Your task to perform on an android device: Search for "macbook" on bestbuy.com, select the first entry, add it to the cart, then select checkout. Image 0: 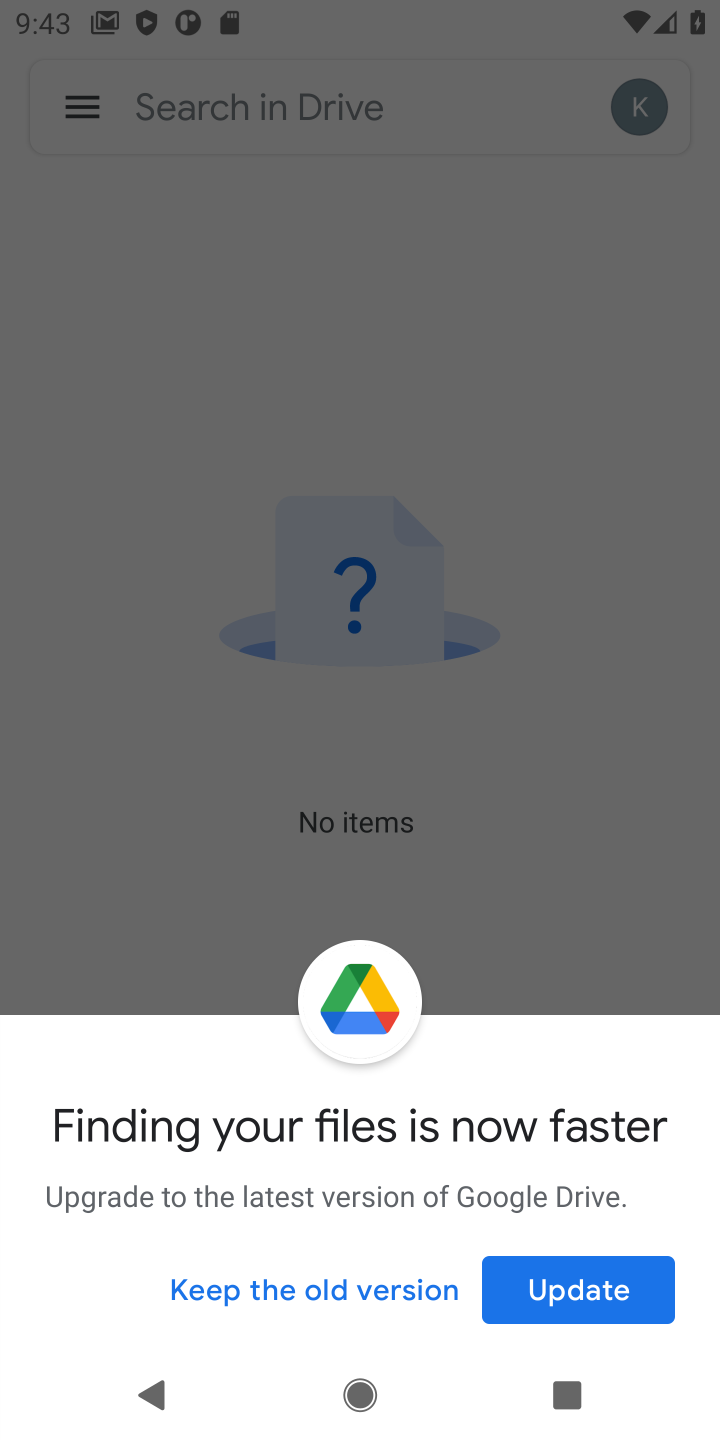
Step 0: press home button
Your task to perform on an android device: Search for "macbook" on bestbuy.com, select the first entry, add it to the cart, then select checkout. Image 1: 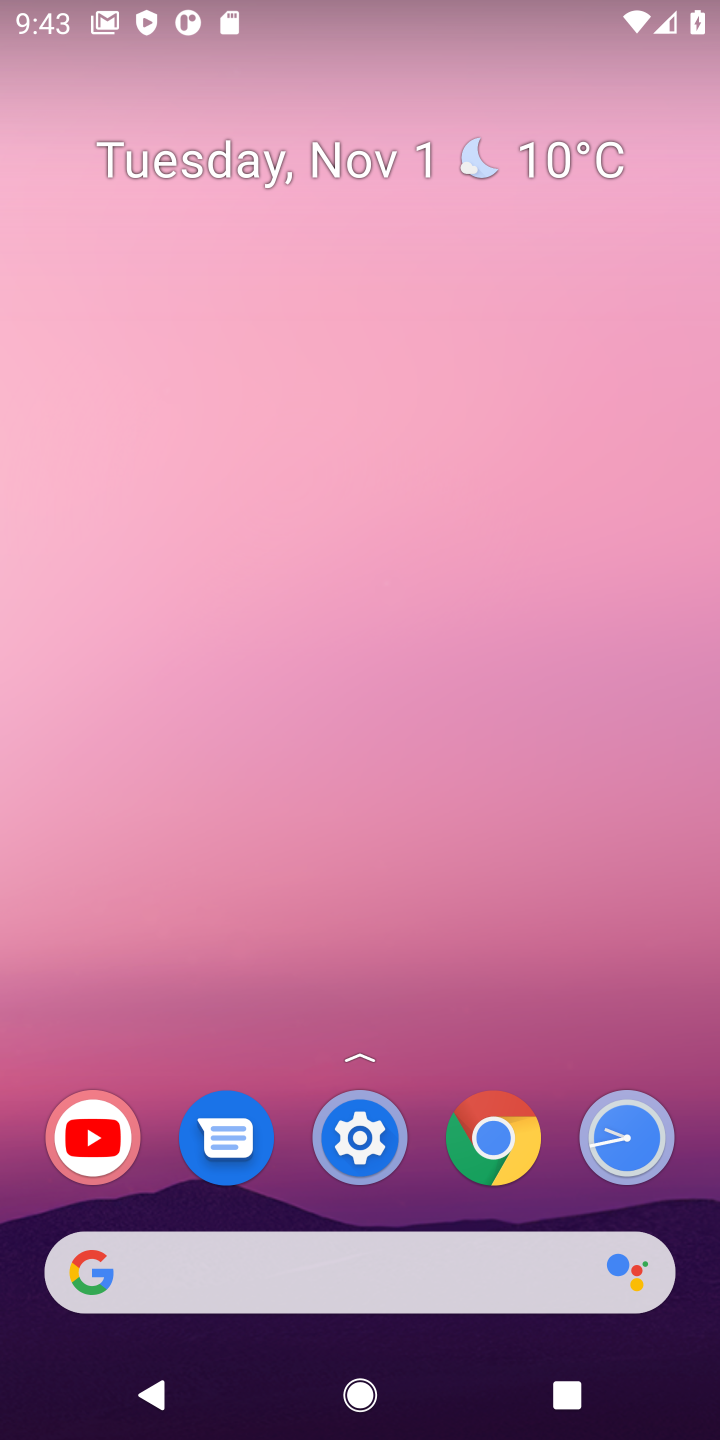
Step 1: click (489, 1143)
Your task to perform on an android device: Search for "macbook" on bestbuy.com, select the first entry, add it to the cart, then select checkout. Image 2: 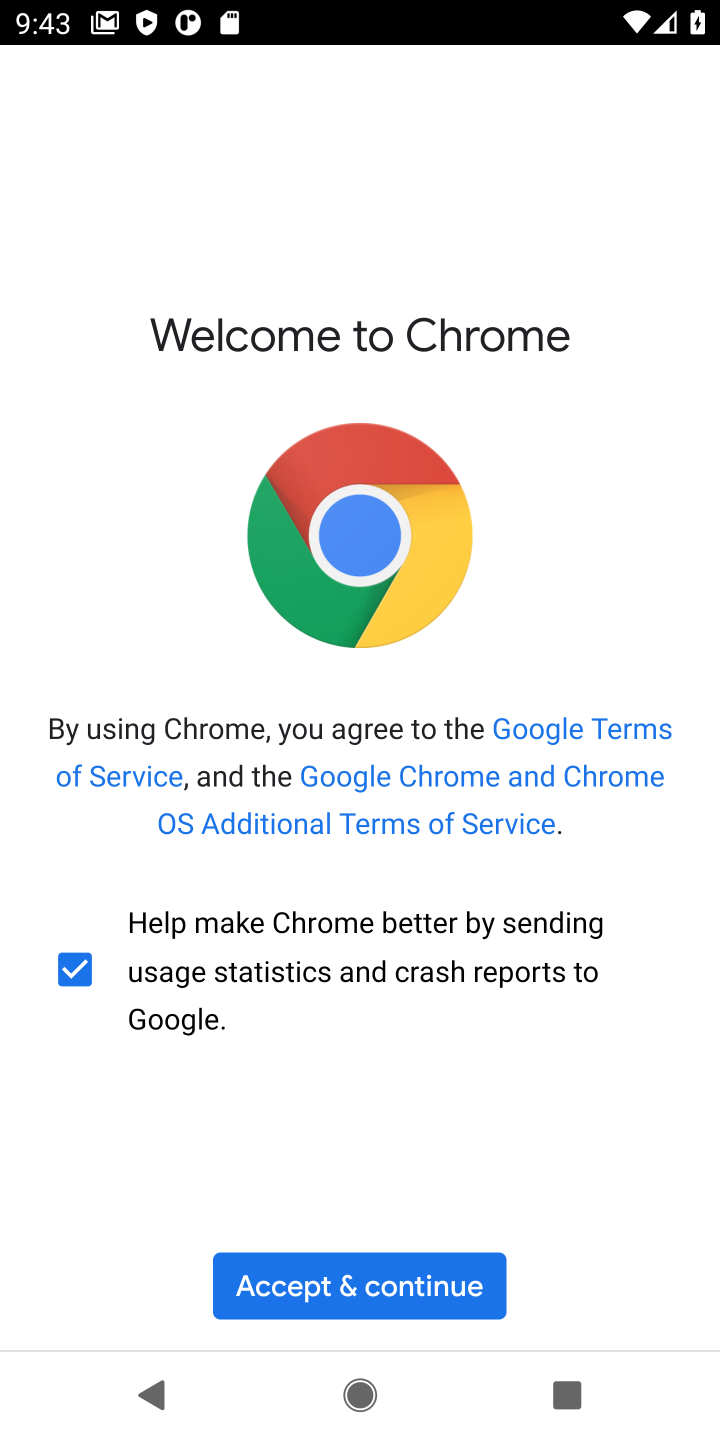
Step 2: click (377, 1273)
Your task to perform on an android device: Search for "macbook" on bestbuy.com, select the first entry, add it to the cart, then select checkout. Image 3: 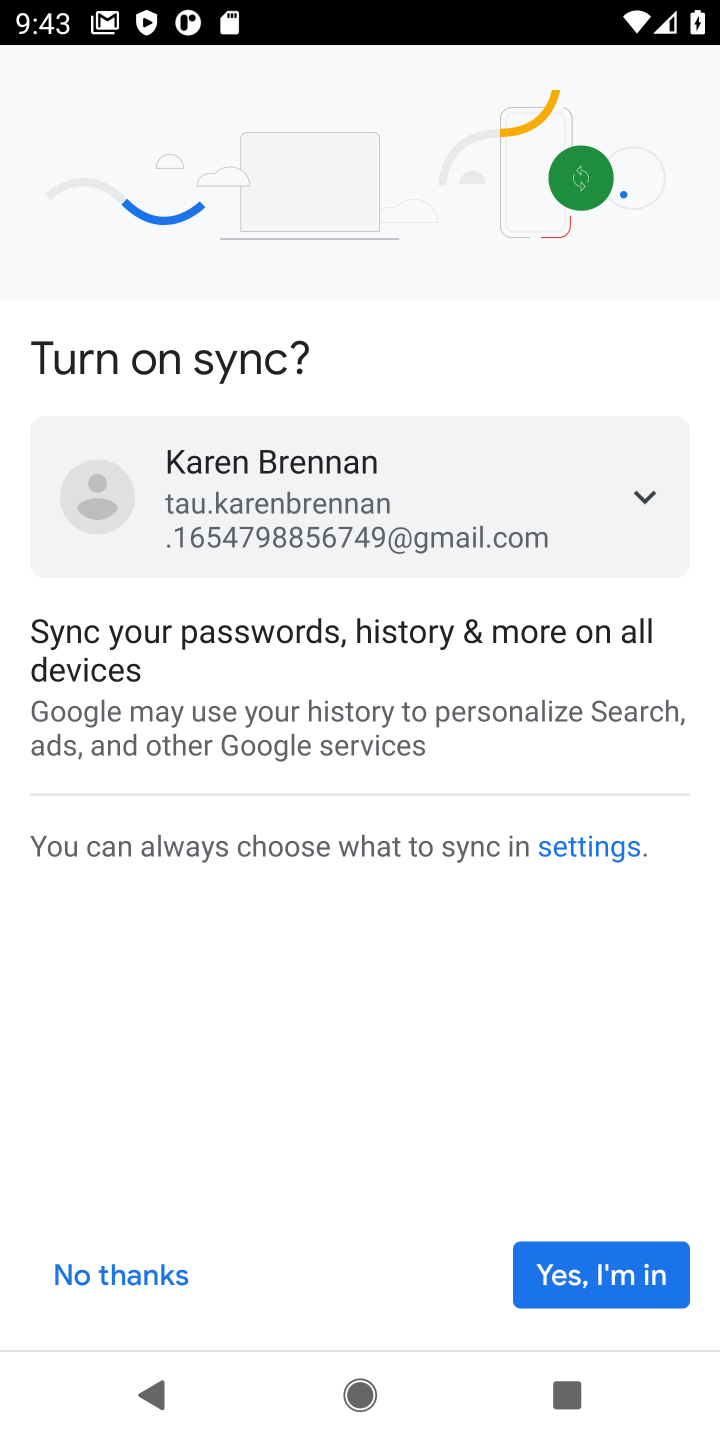
Step 3: click (610, 1281)
Your task to perform on an android device: Search for "macbook" on bestbuy.com, select the first entry, add it to the cart, then select checkout. Image 4: 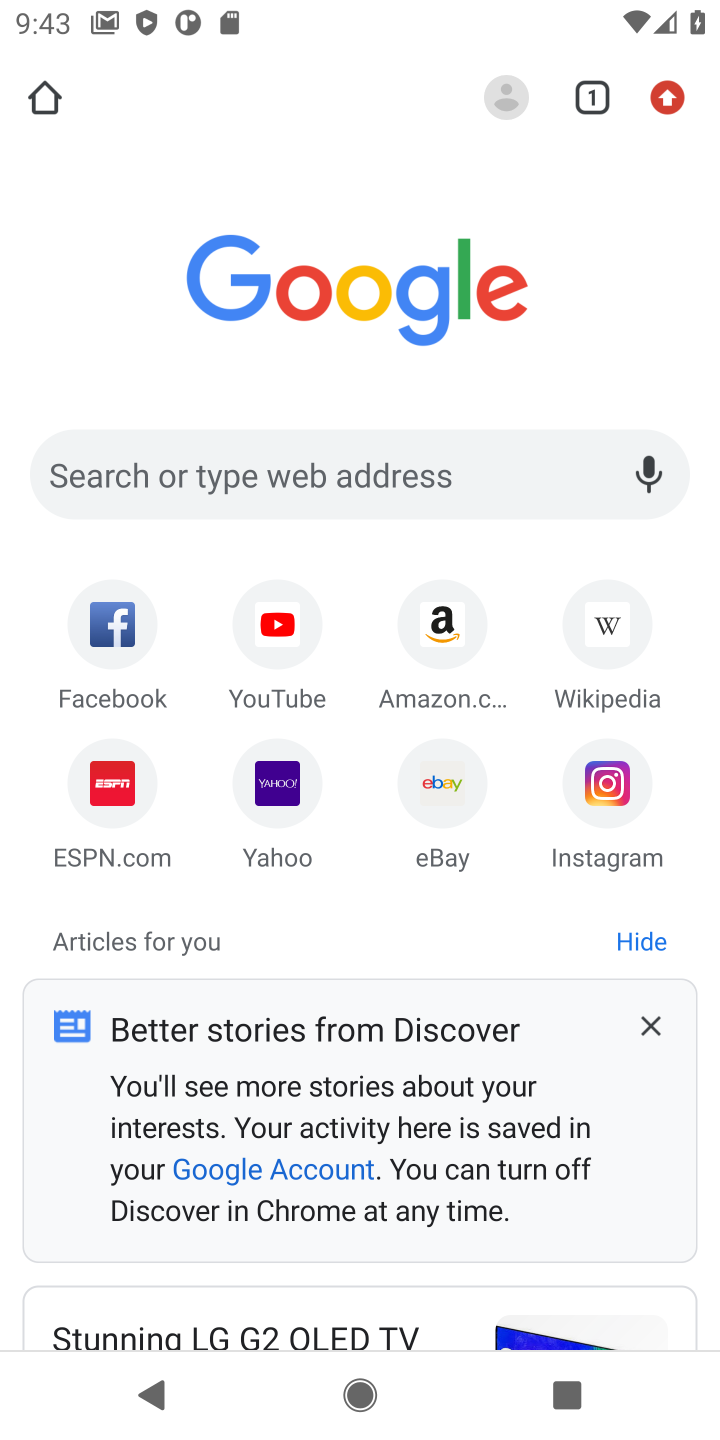
Step 4: click (356, 474)
Your task to perform on an android device: Search for "macbook" on bestbuy.com, select the first entry, add it to the cart, then select checkout. Image 5: 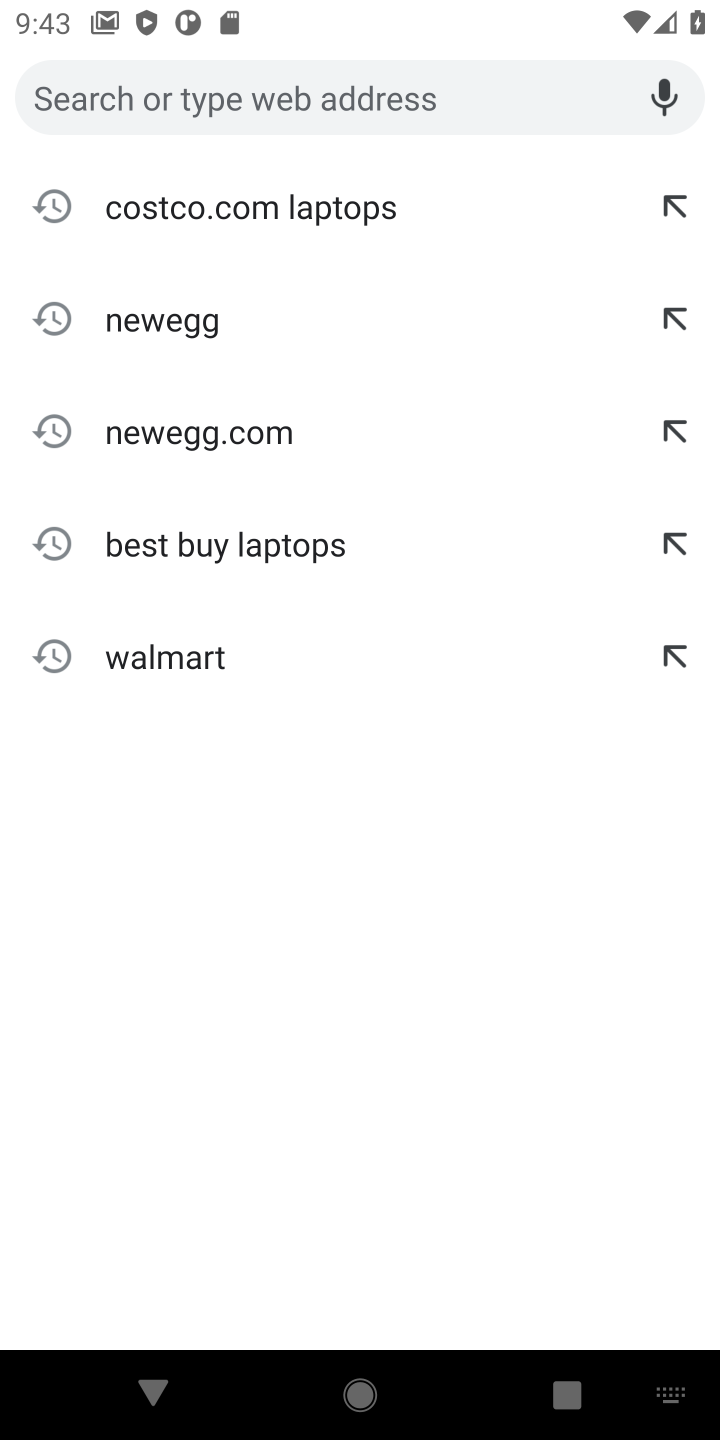
Step 5: type "bestbuy"
Your task to perform on an android device: Search for "macbook" on bestbuy.com, select the first entry, add it to the cart, then select checkout. Image 6: 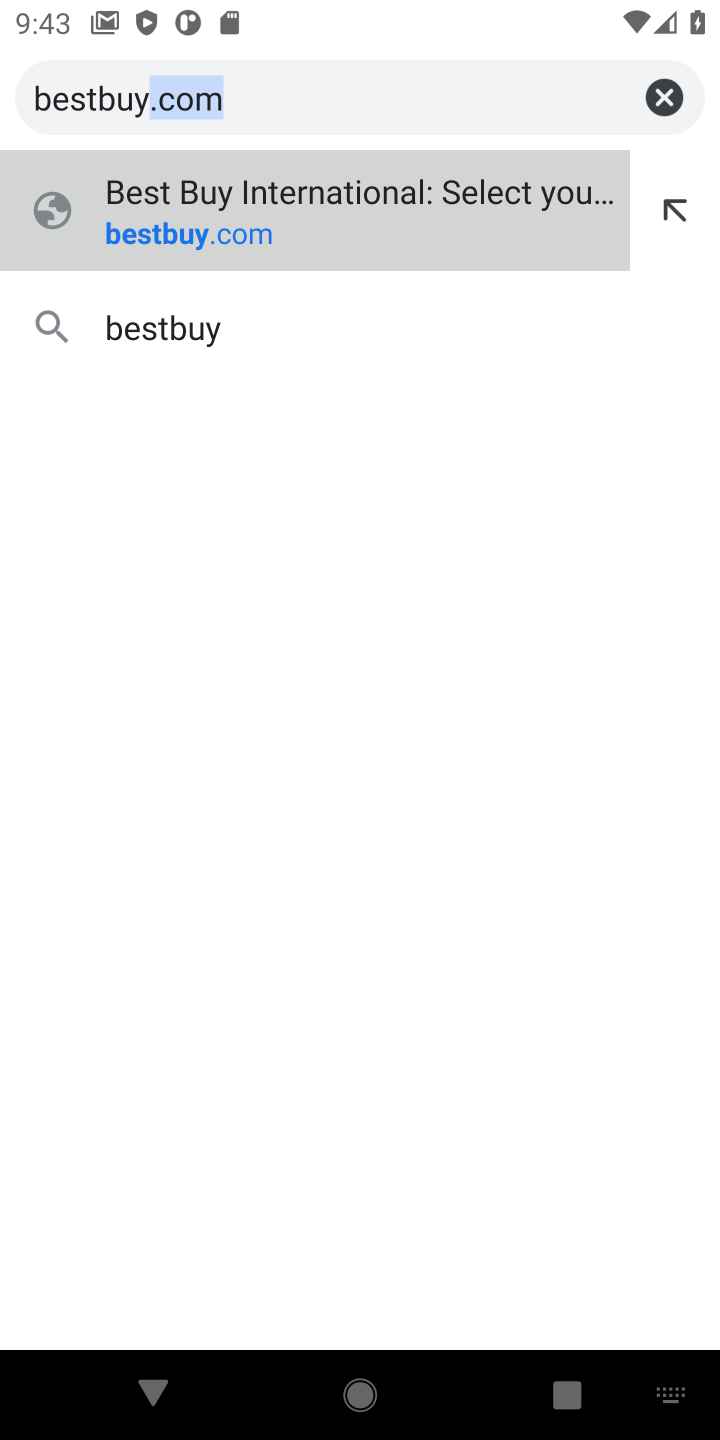
Step 6: click (415, 189)
Your task to perform on an android device: Search for "macbook" on bestbuy.com, select the first entry, add it to the cart, then select checkout. Image 7: 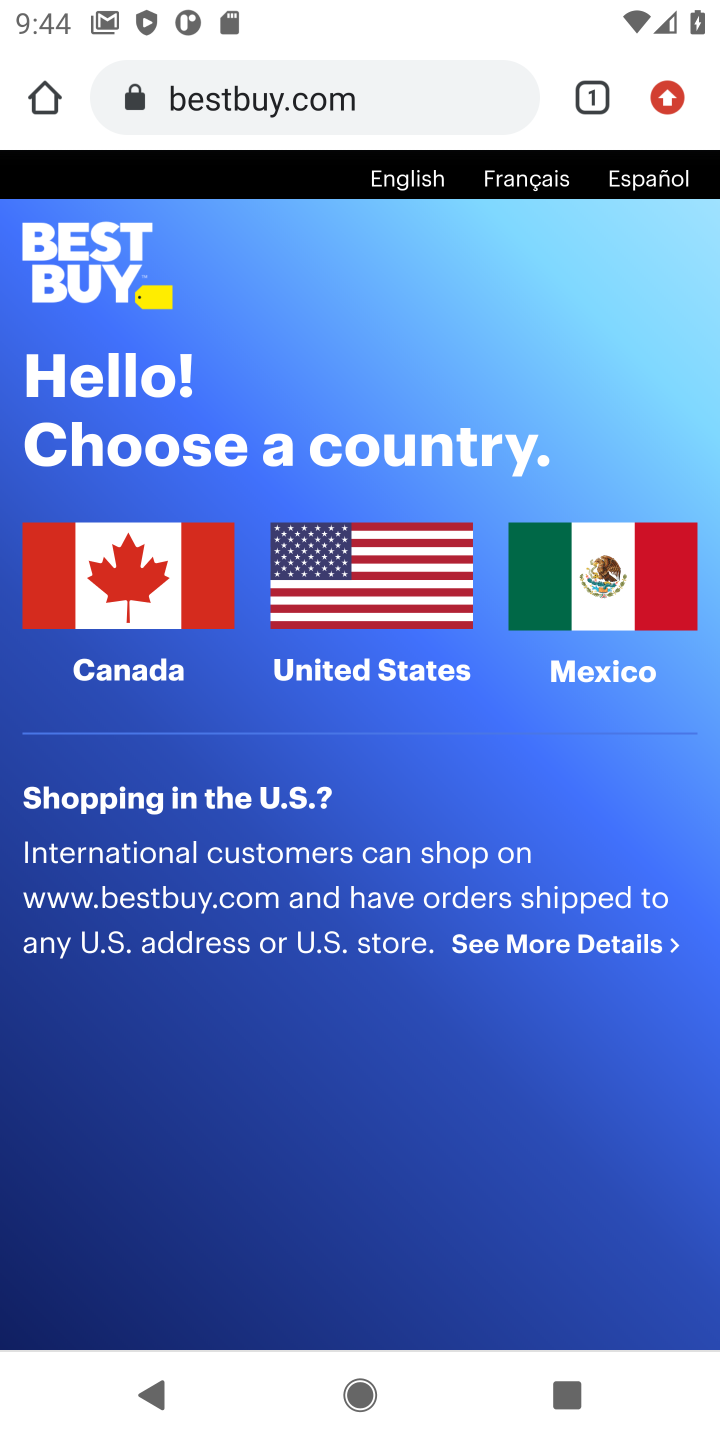
Step 7: click (372, 622)
Your task to perform on an android device: Search for "macbook" on bestbuy.com, select the first entry, add it to the cart, then select checkout. Image 8: 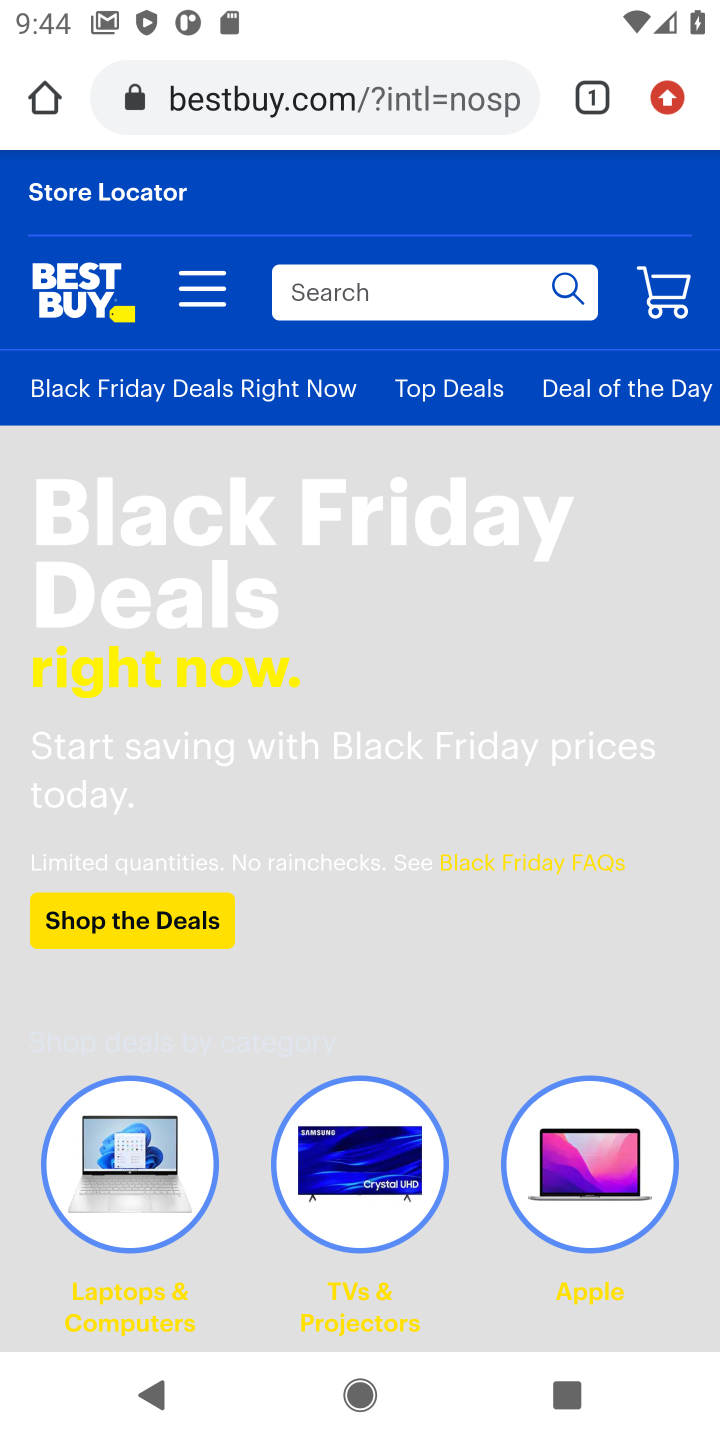
Step 8: click (412, 297)
Your task to perform on an android device: Search for "macbook" on bestbuy.com, select the first entry, add it to the cart, then select checkout. Image 9: 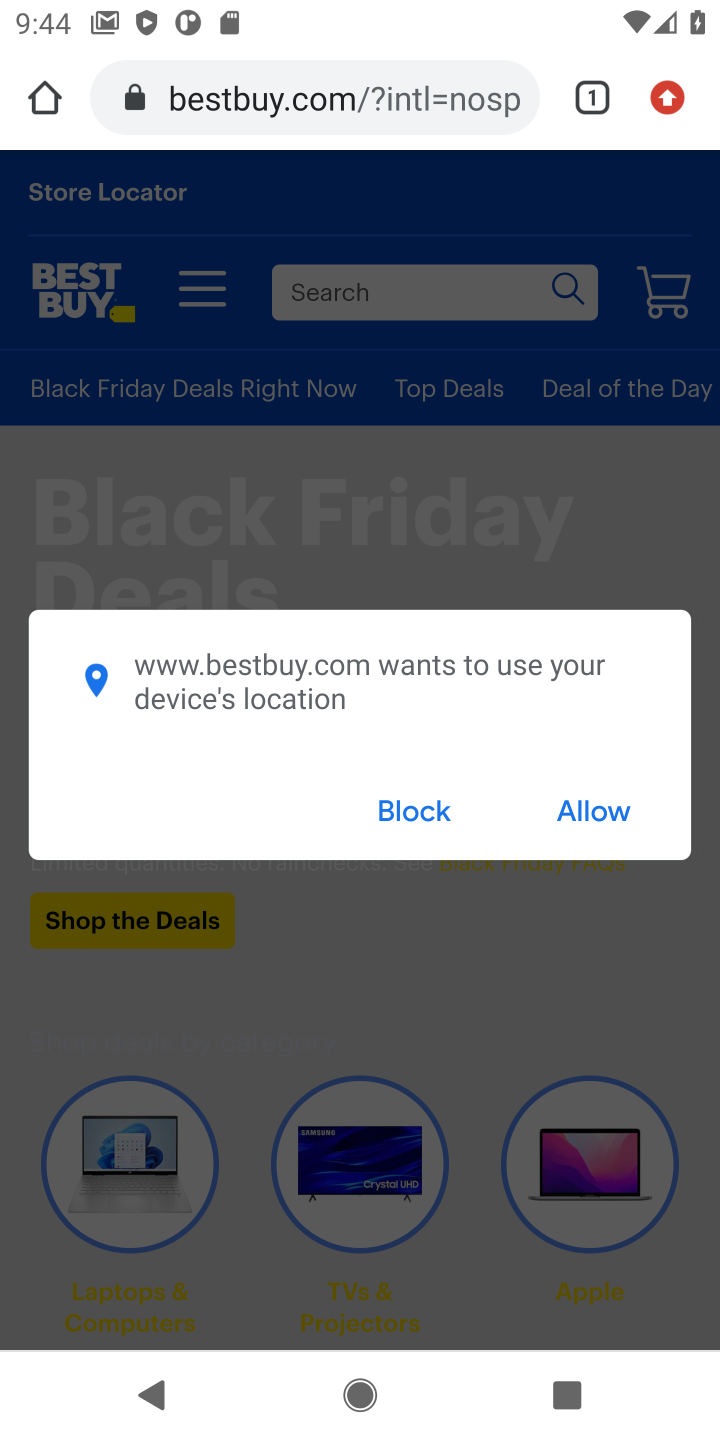
Step 9: type "macbook"
Your task to perform on an android device: Search for "macbook" on bestbuy.com, select the first entry, add it to the cart, then select checkout. Image 10: 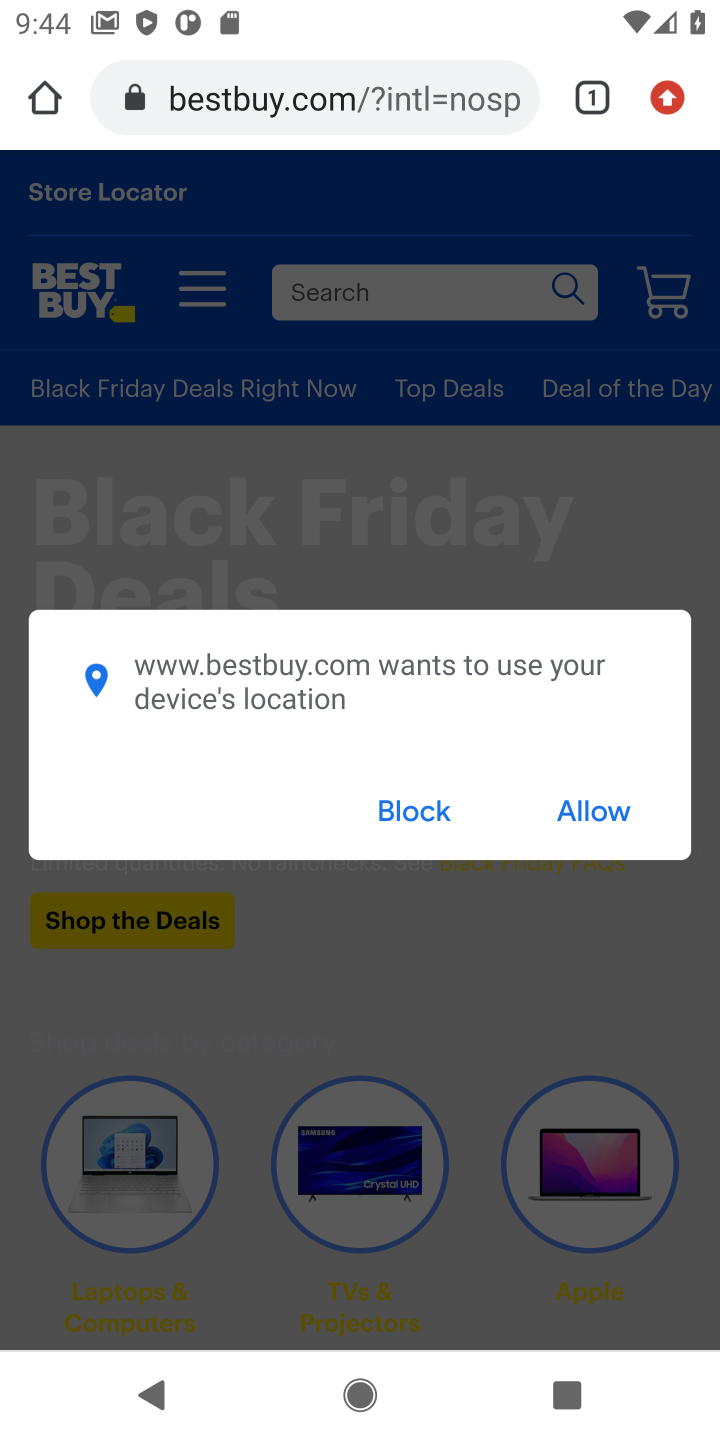
Step 10: click (602, 800)
Your task to perform on an android device: Search for "macbook" on bestbuy.com, select the first entry, add it to the cart, then select checkout. Image 11: 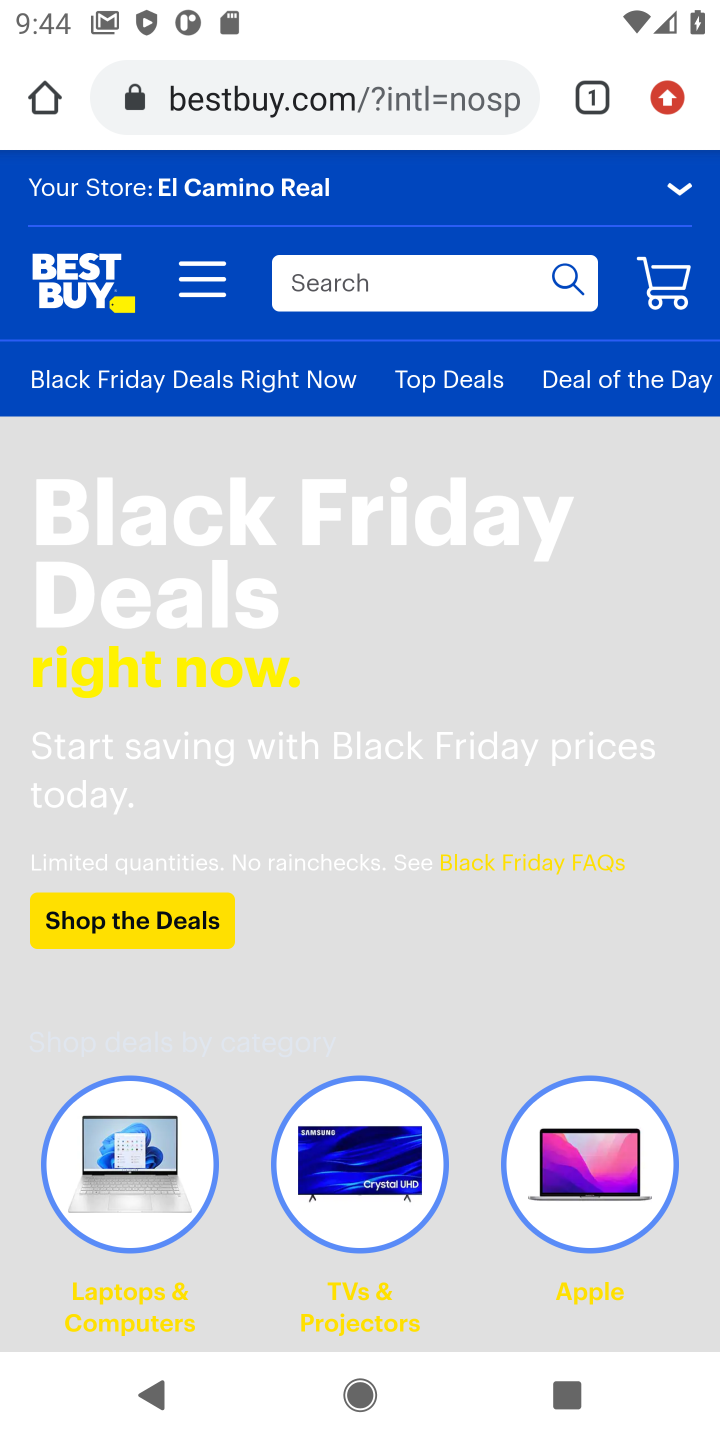
Step 11: click (458, 293)
Your task to perform on an android device: Search for "macbook" on bestbuy.com, select the first entry, add it to the cart, then select checkout. Image 12: 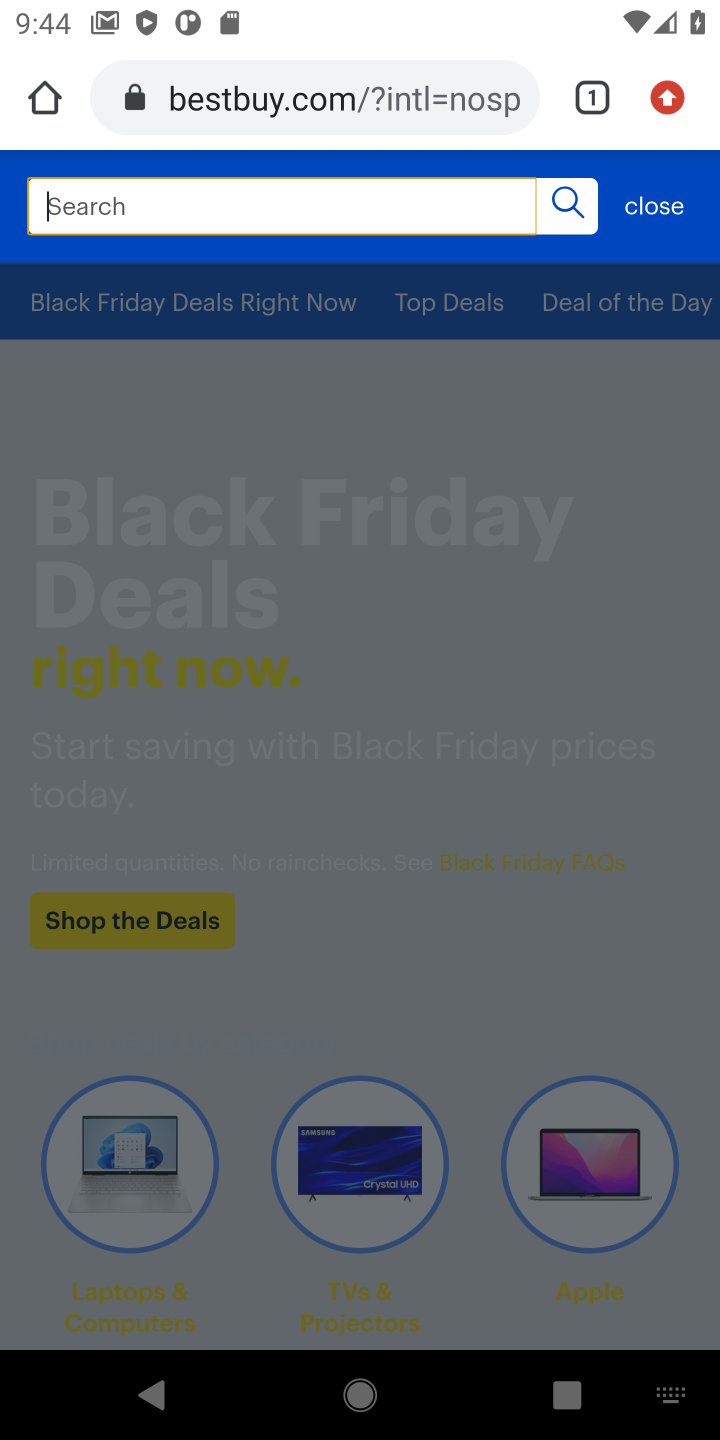
Step 12: type "macbook"
Your task to perform on an android device: Search for "macbook" on bestbuy.com, select the first entry, add it to the cart, then select checkout. Image 13: 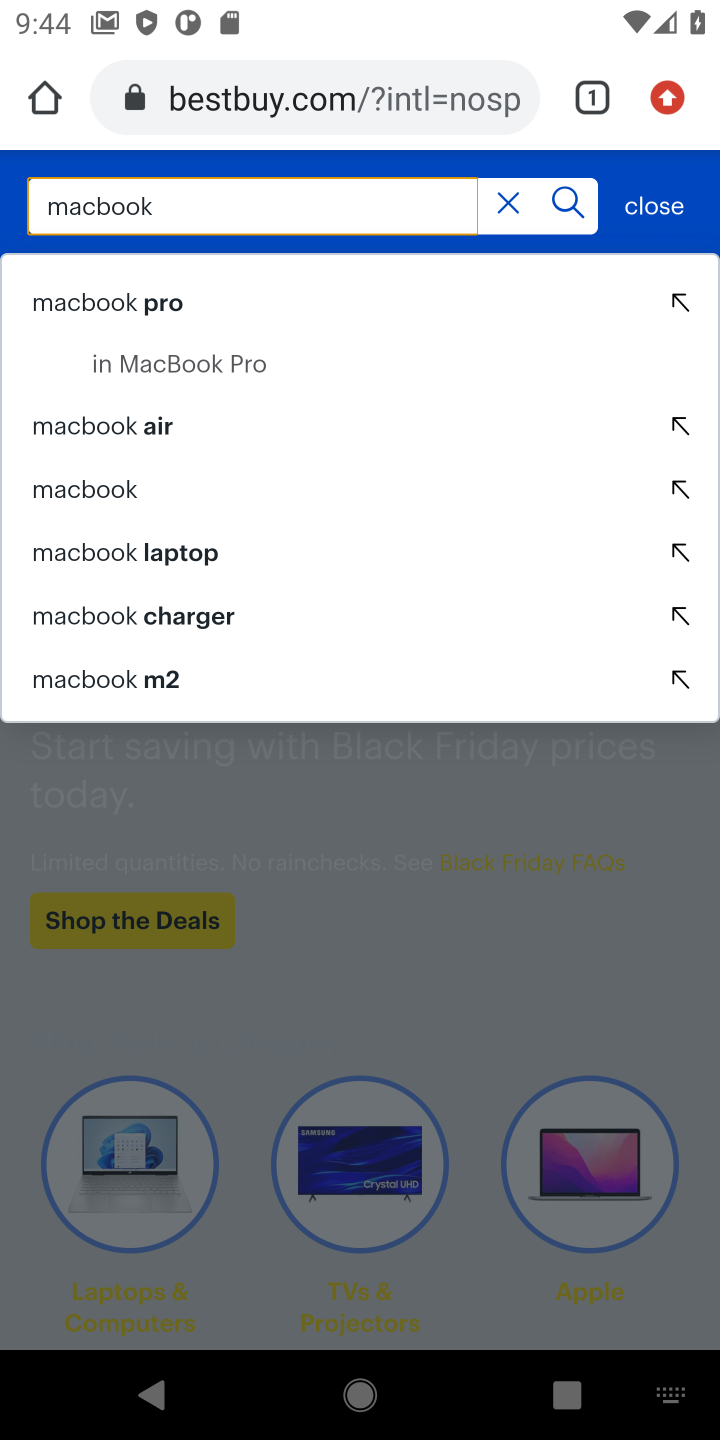
Step 13: click (102, 303)
Your task to perform on an android device: Search for "macbook" on bestbuy.com, select the first entry, add it to the cart, then select checkout. Image 14: 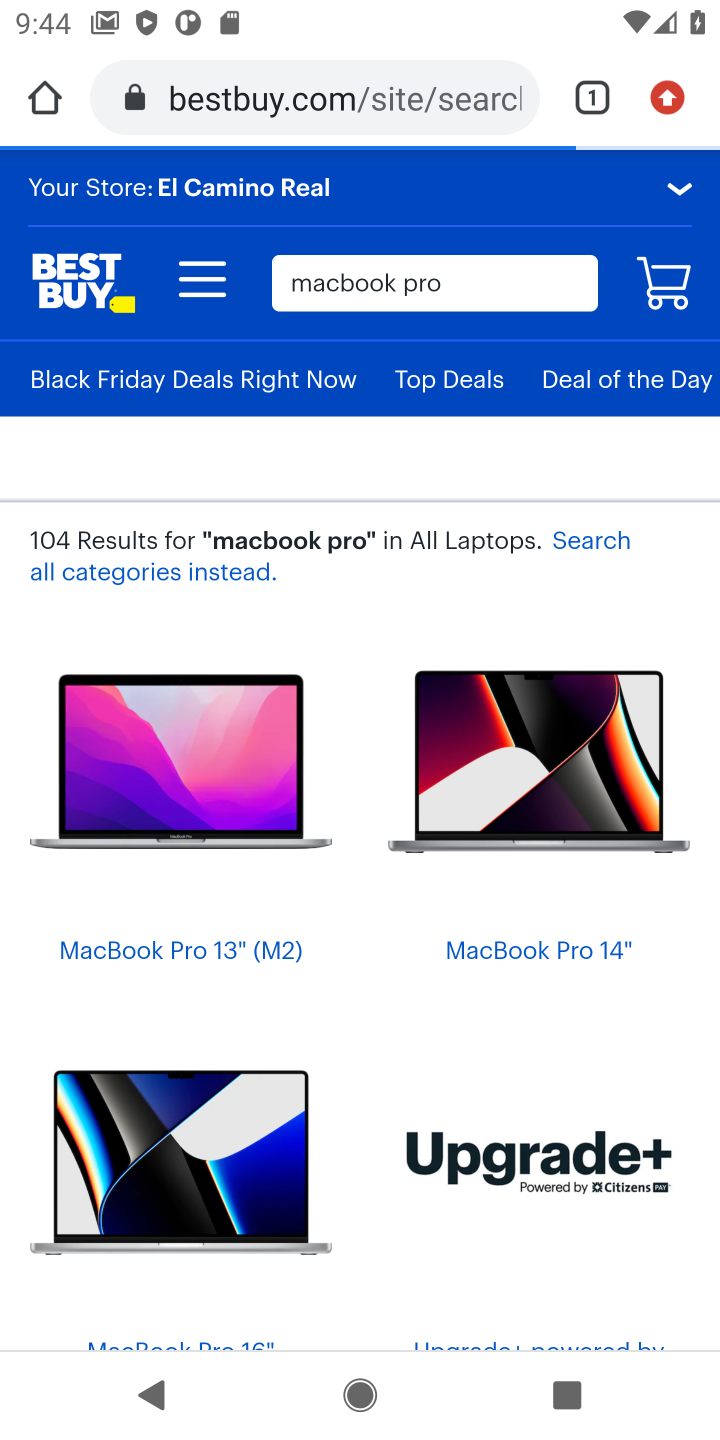
Step 14: click (248, 950)
Your task to perform on an android device: Search for "macbook" on bestbuy.com, select the first entry, add it to the cart, then select checkout. Image 15: 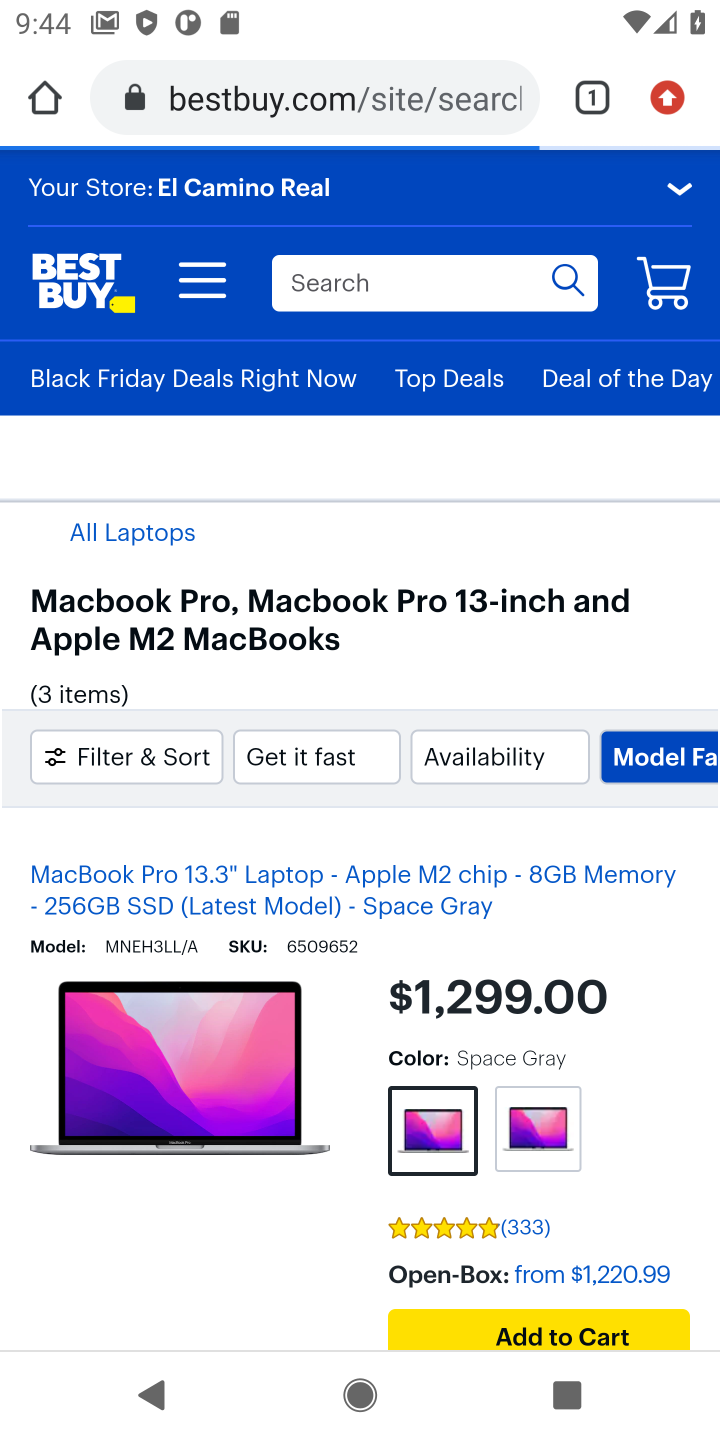
Step 15: click (583, 1280)
Your task to perform on an android device: Search for "macbook" on bestbuy.com, select the first entry, add it to the cart, then select checkout. Image 16: 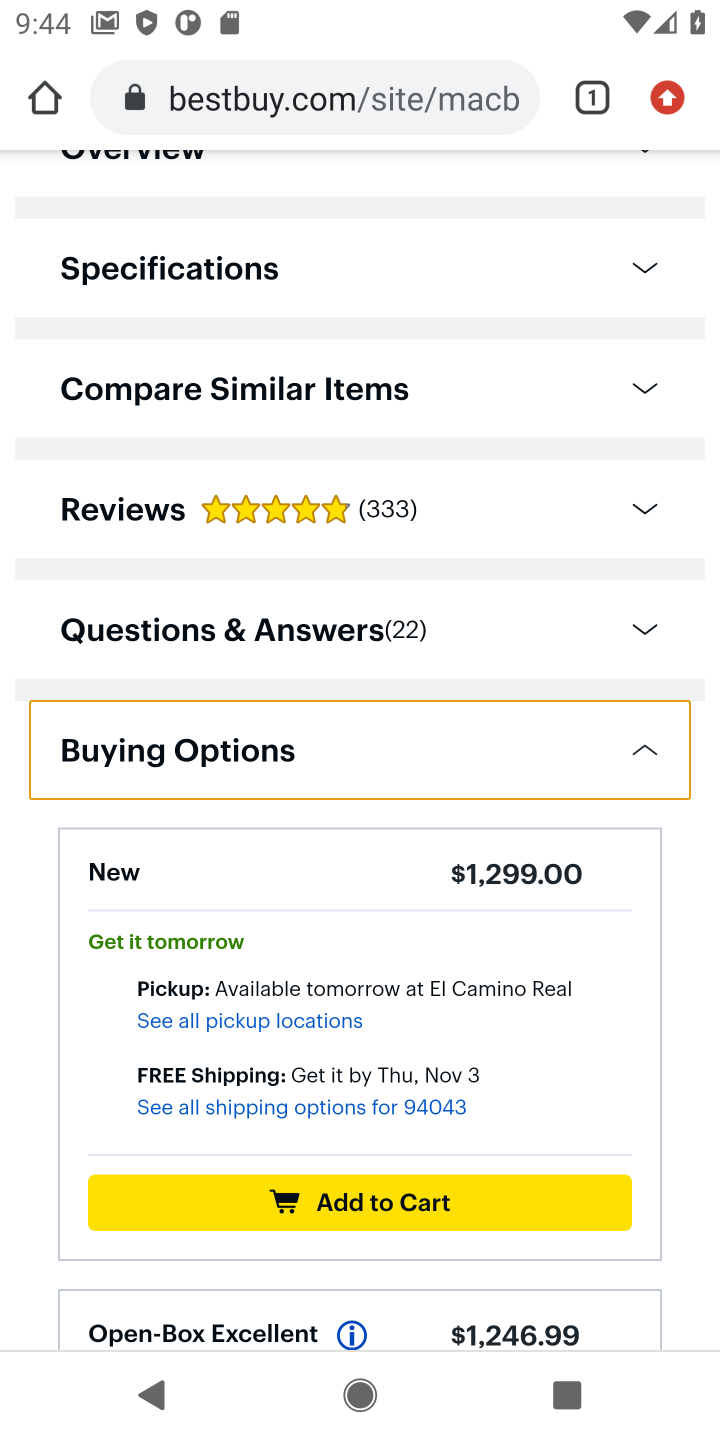
Step 16: click (438, 1202)
Your task to perform on an android device: Search for "macbook" on bestbuy.com, select the first entry, add it to the cart, then select checkout. Image 17: 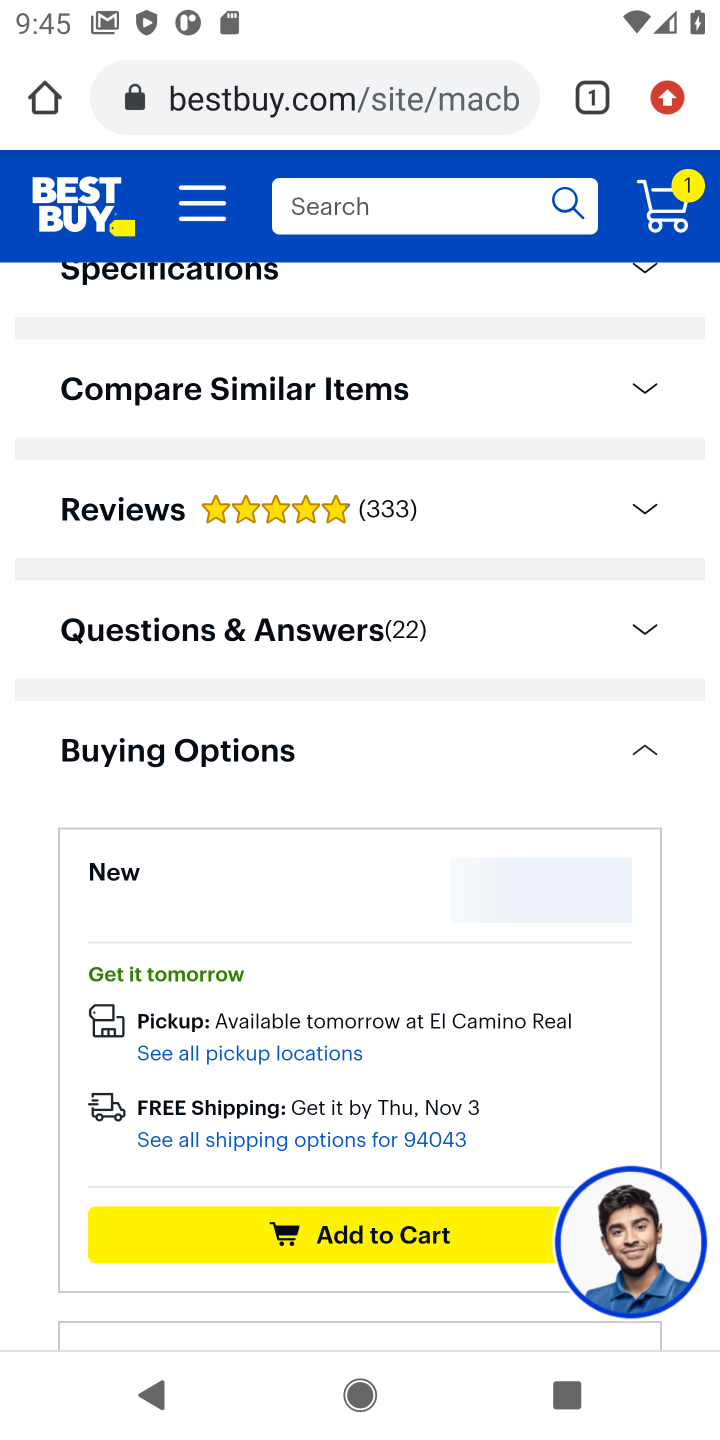
Step 17: click (679, 200)
Your task to perform on an android device: Search for "macbook" on bestbuy.com, select the first entry, add it to the cart, then select checkout. Image 18: 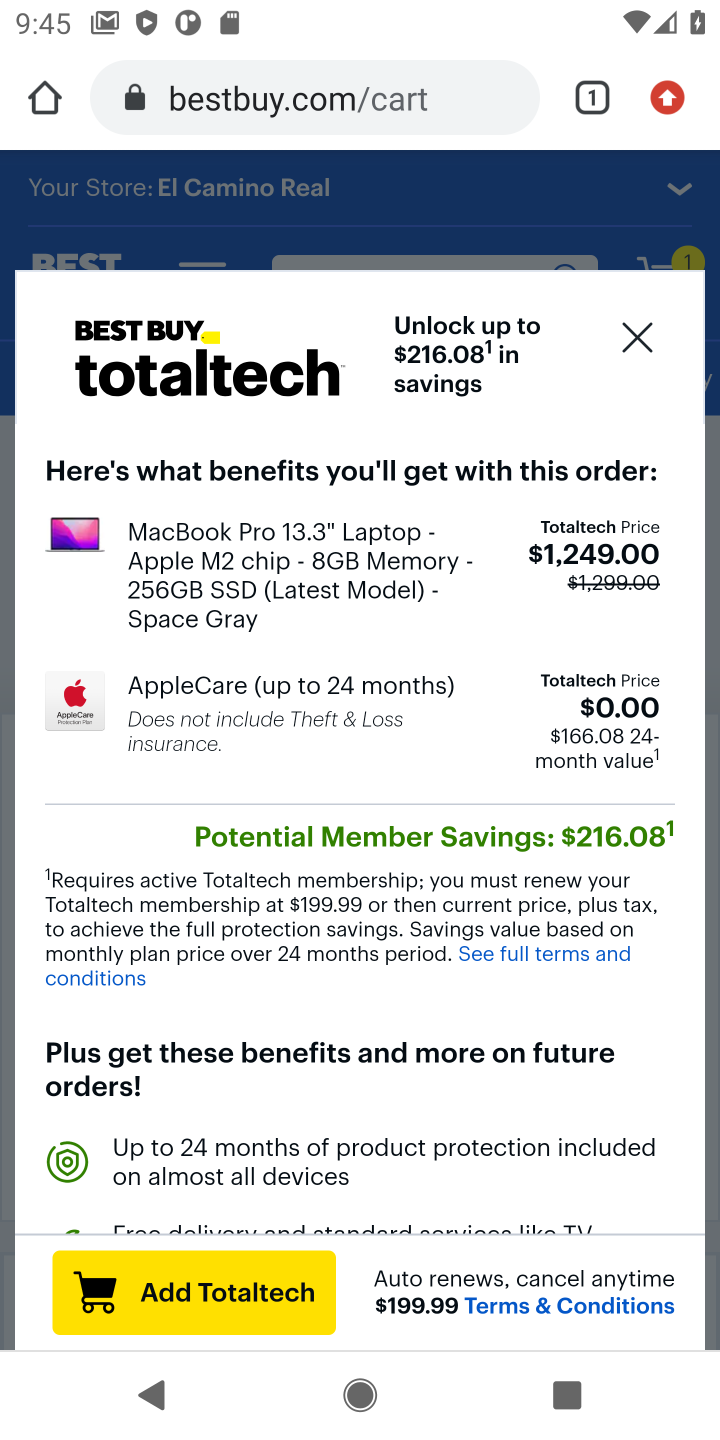
Step 18: click (636, 330)
Your task to perform on an android device: Search for "macbook" on bestbuy.com, select the first entry, add it to the cart, then select checkout. Image 19: 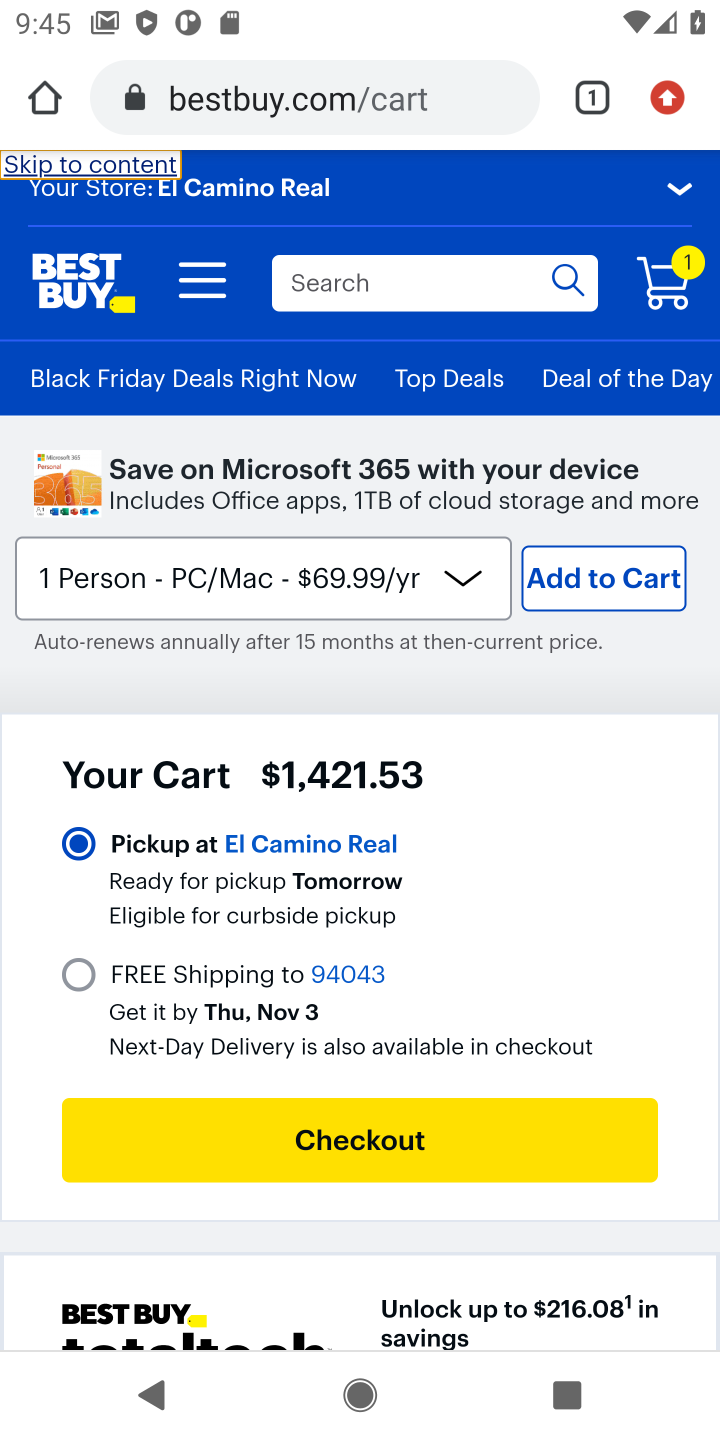
Step 19: click (330, 1131)
Your task to perform on an android device: Search for "macbook" on bestbuy.com, select the first entry, add it to the cart, then select checkout. Image 20: 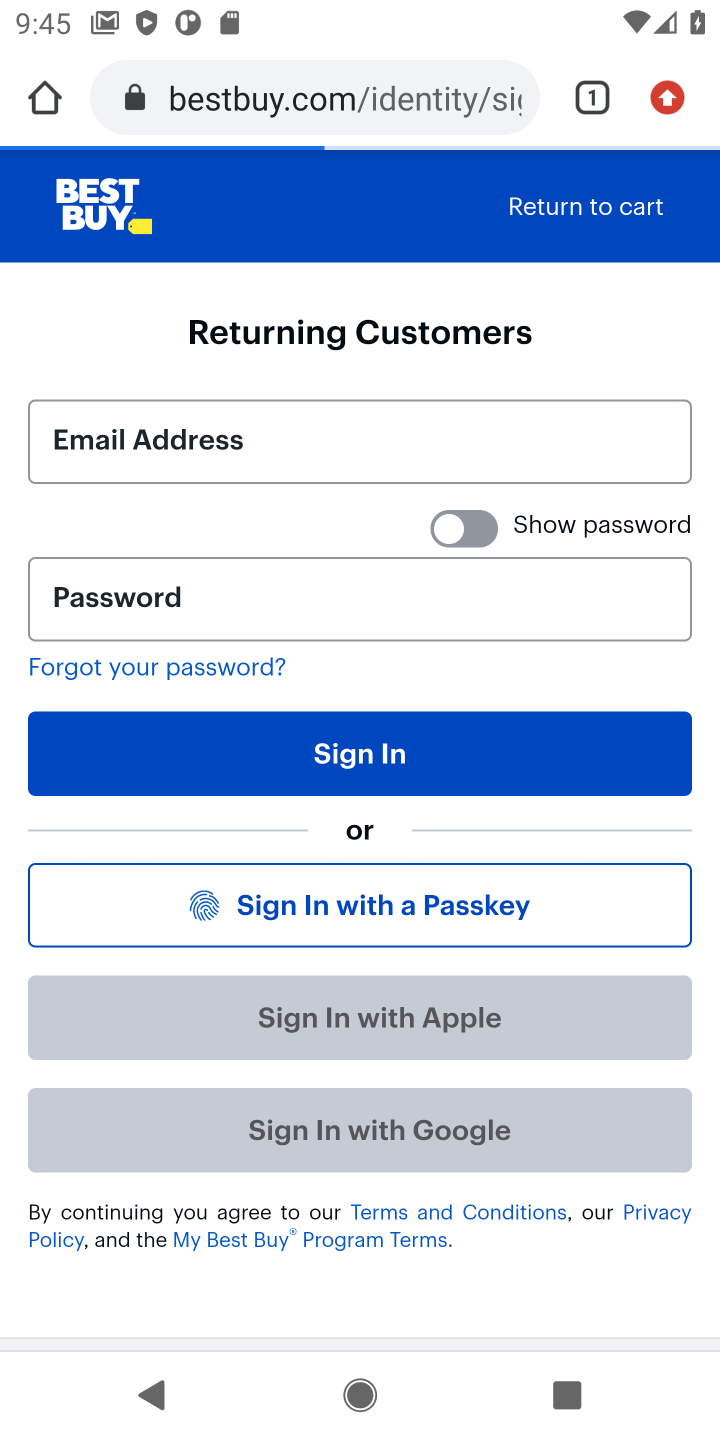
Step 20: task complete